Your task to perform on an android device: open device folders in google photos Image 0: 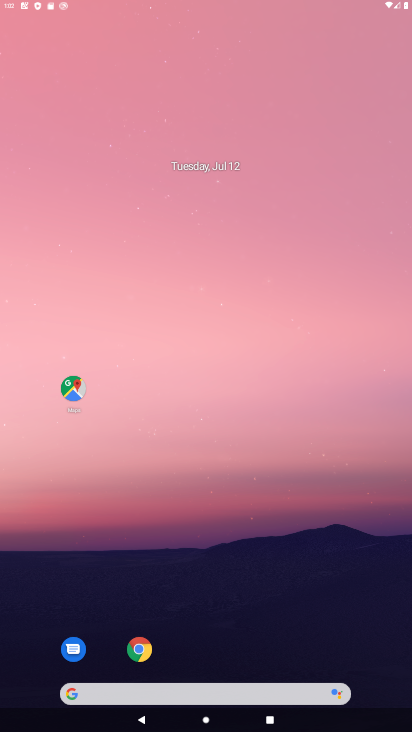
Step 0: drag from (262, 628) to (158, 9)
Your task to perform on an android device: open device folders in google photos Image 1: 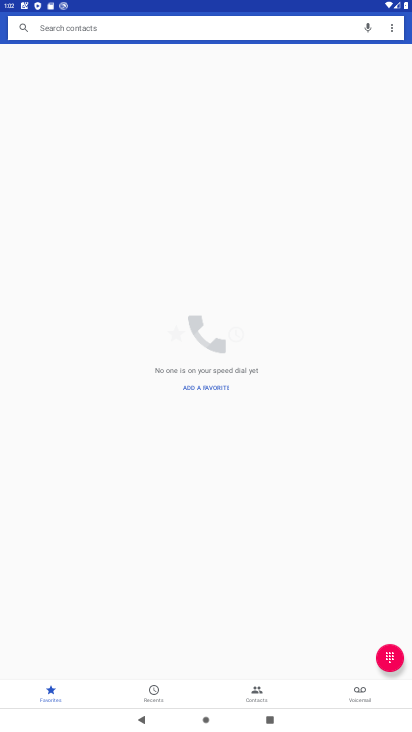
Step 1: press home button
Your task to perform on an android device: open device folders in google photos Image 2: 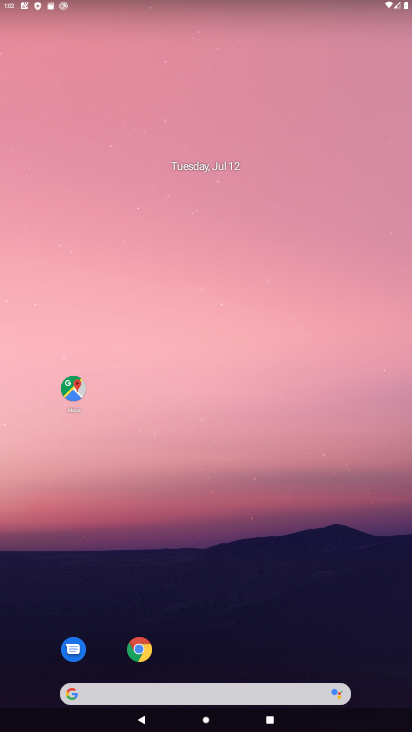
Step 2: drag from (241, 646) to (209, 126)
Your task to perform on an android device: open device folders in google photos Image 3: 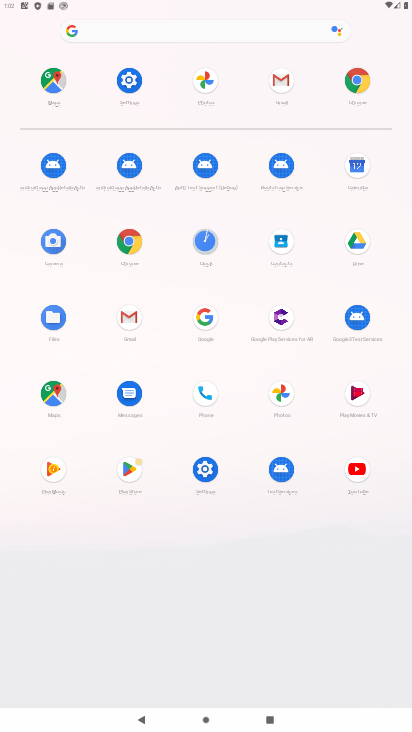
Step 3: click (203, 101)
Your task to perform on an android device: open device folders in google photos Image 4: 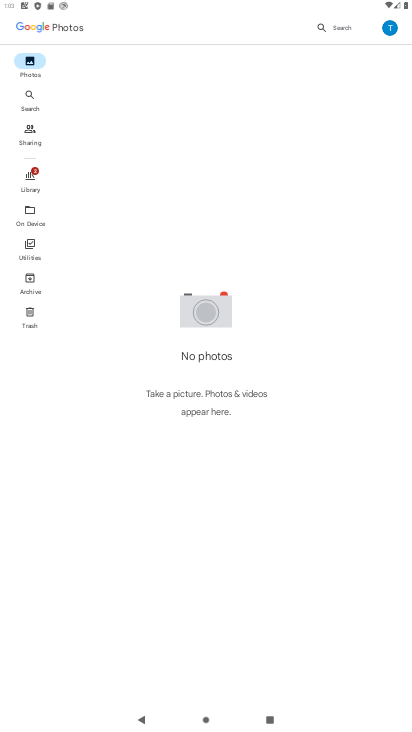
Step 4: click (27, 223)
Your task to perform on an android device: open device folders in google photos Image 5: 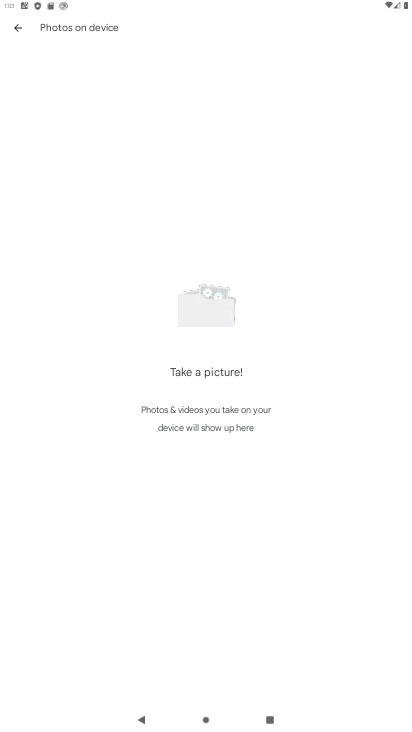
Step 5: task complete